Your task to perform on an android device: Open settings Image 0: 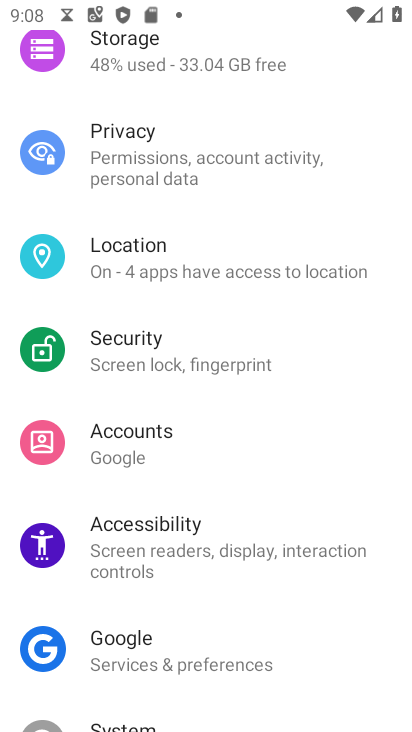
Step 0: drag from (180, 126) to (266, 714)
Your task to perform on an android device: Open settings Image 1: 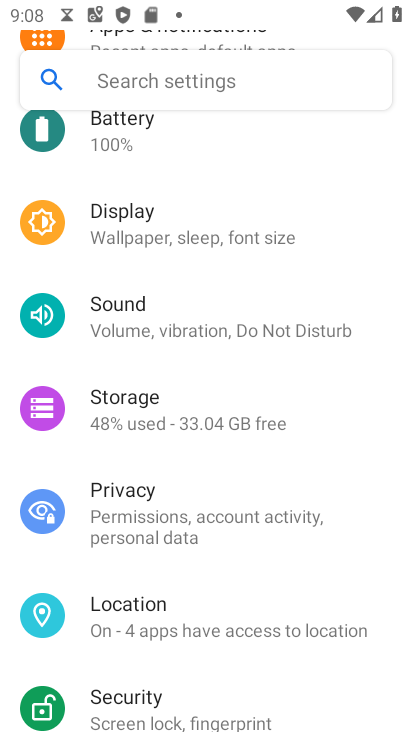
Step 1: task complete